Your task to perform on an android device: open chrome privacy settings Image 0: 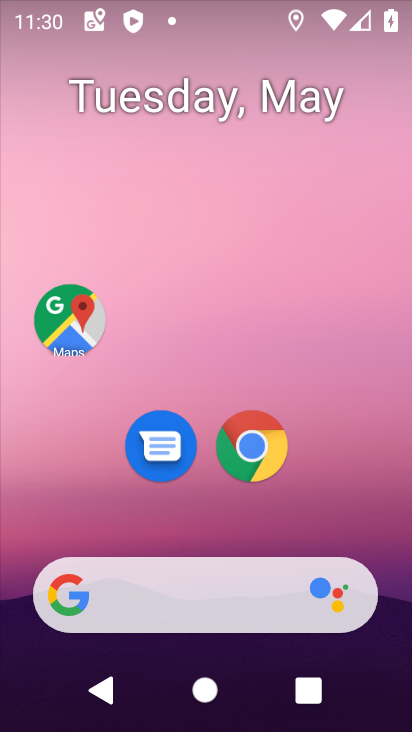
Step 0: drag from (242, 706) to (242, 78)
Your task to perform on an android device: open chrome privacy settings Image 1: 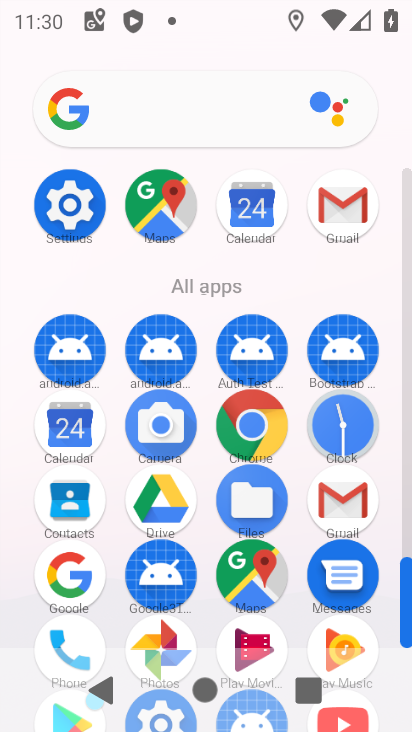
Step 1: click (242, 428)
Your task to perform on an android device: open chrome privacy settings Image 2: 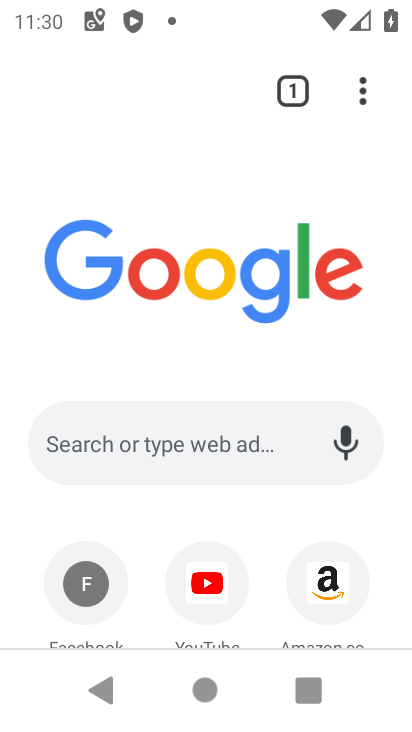
Step 2: click (365, 99)
Your task to perform on an android device: open chrome privacy settings Image 3: 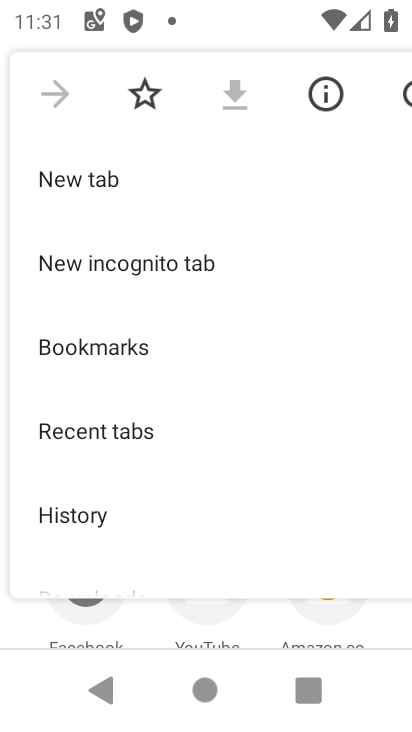
Step 3: drag from (123, 566) to (124, 204)
Your task to perform on an android device: open chrome privacy settings Image 4: 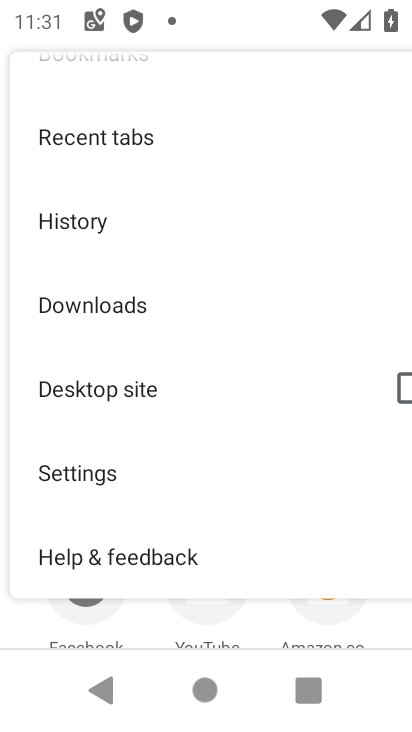
Step 4: click (76, 472)
Your task to perform on an android device: open chrome privacy settings Image 5: 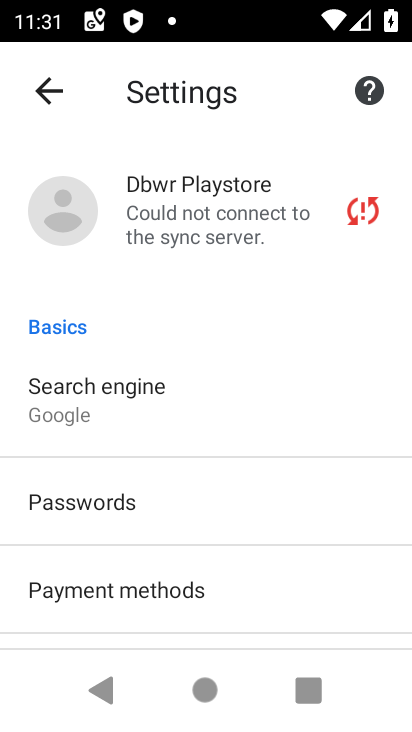
Step 5: drag from (93, 616) to (120, 237)
Your task to perform on an android device: open chrome privacy settings Image 6: 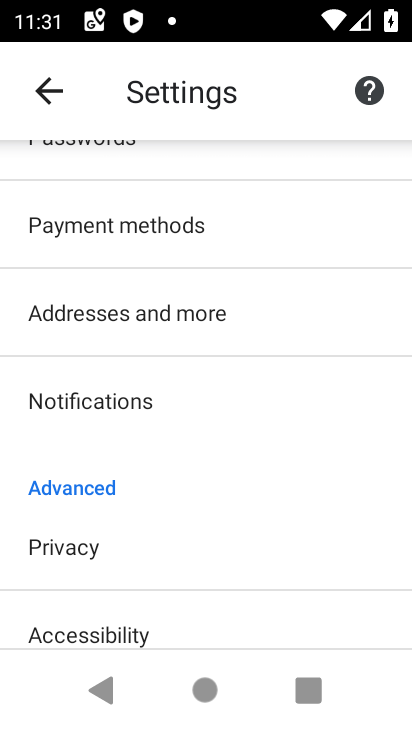
Step 6: click (81, 546)
Your task to perform on an android device: open chrome privacy settings Image 7: 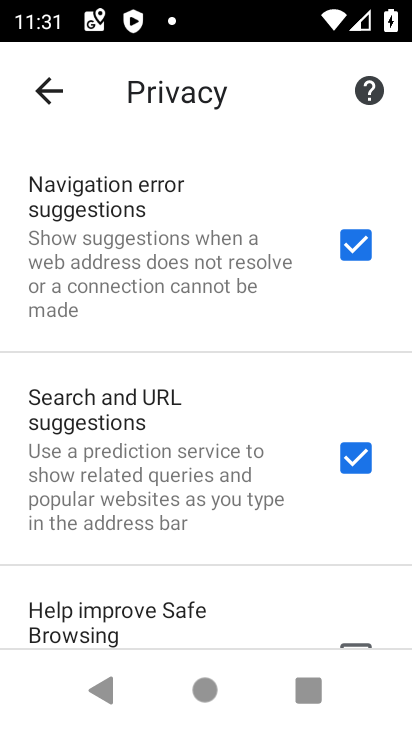
Step 7: task complete